Your task to perform on an android device: turn on showing notifications on the lock screen Image 0: 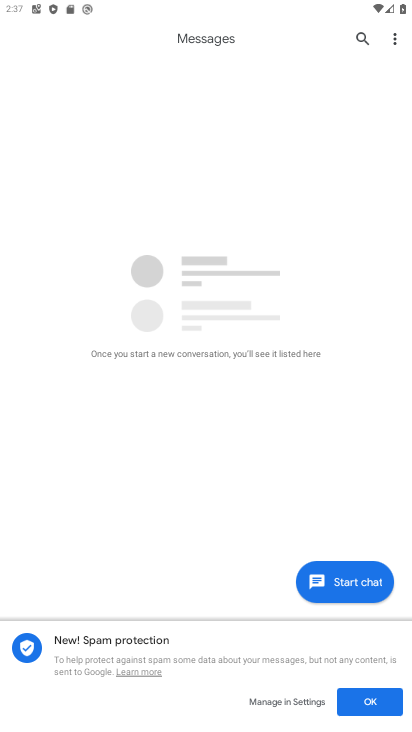
Step 0: press home button
Your task to perform on an android device: turn on showing notifications on the lock screen Image 1: 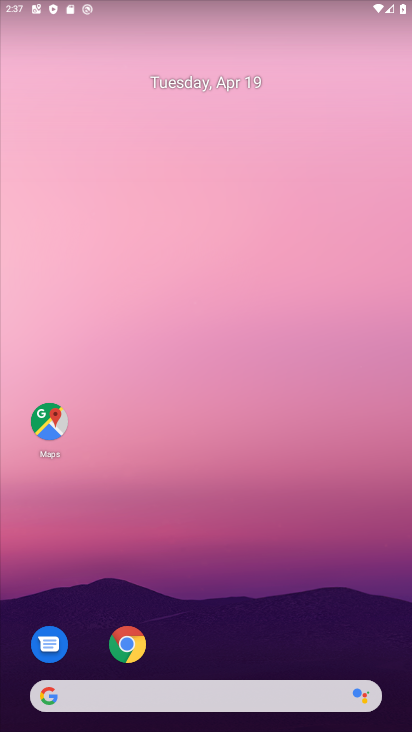
Step 1: drag from (277, 625) to (212, 177)
Your task to perform on an android device: turn on showing notifications on the lock screen Image 2: 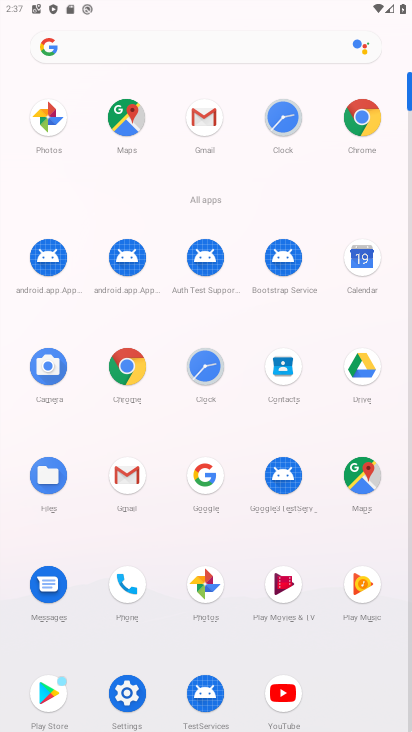
Step 2: click (130, 680)
Your task to perform on an android device: turn on showing notifications on the lock screen Image 3: 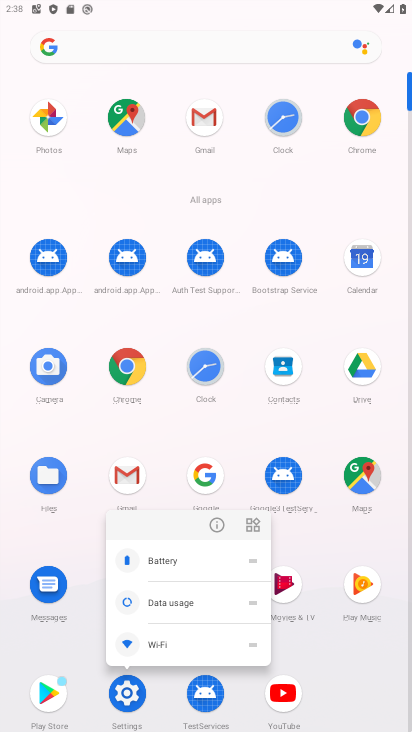
Step 3: click (118, 694)
Your task to perform on an android device: turn on showing notifications on the lock screen Image 4: 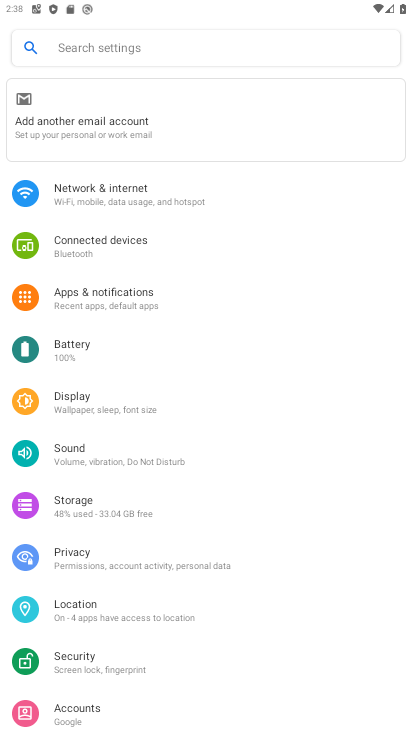
Step 4: click (87, 304)
Your task to perform on an android device: turn on showing notifications on the lock screen Image 5: 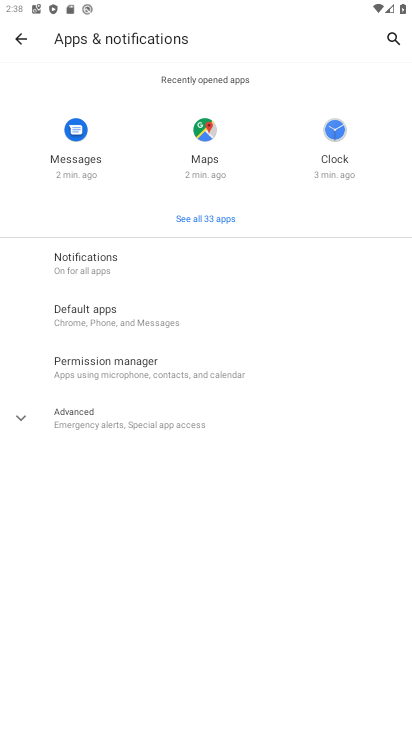
Step 5: click (91, 267)
Your task to perform on an android device: turn on showing notifications on the lock screen Image 6: 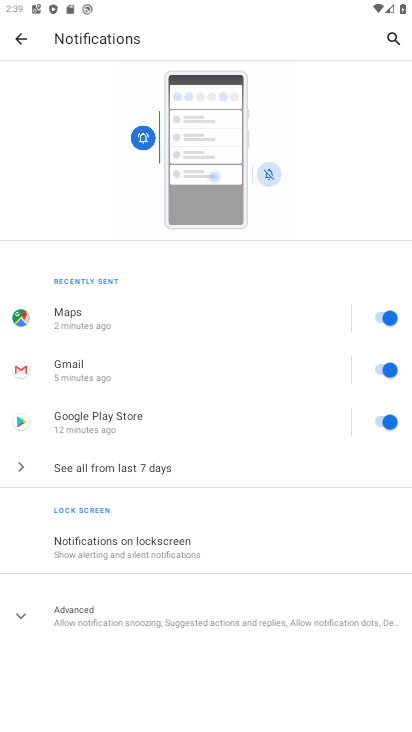
Step 6: click (133, 546)
Your task to perform on an android device: turn on showing notifications on the lock screen Image 7: 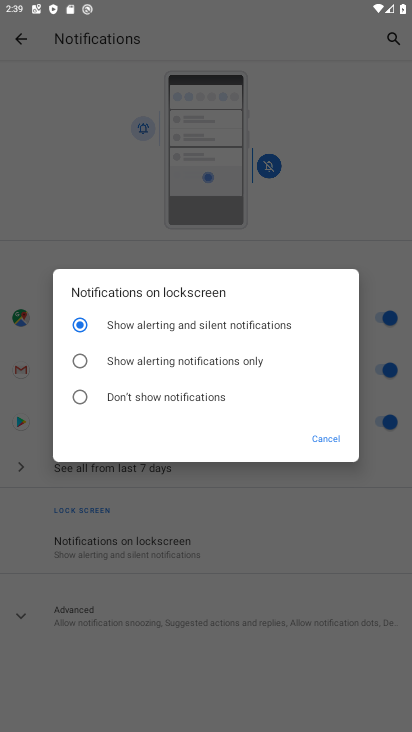
Step 7: click (217, 359)
Your task to perform on an android device: turn on showing notifications on the lock screen Image 8: 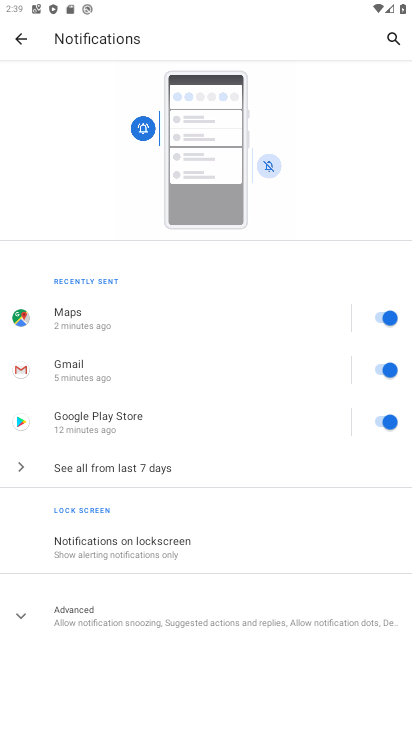
Step 8: task complete